Your task to perform on an android device: Turn off the flashlight Image 0: 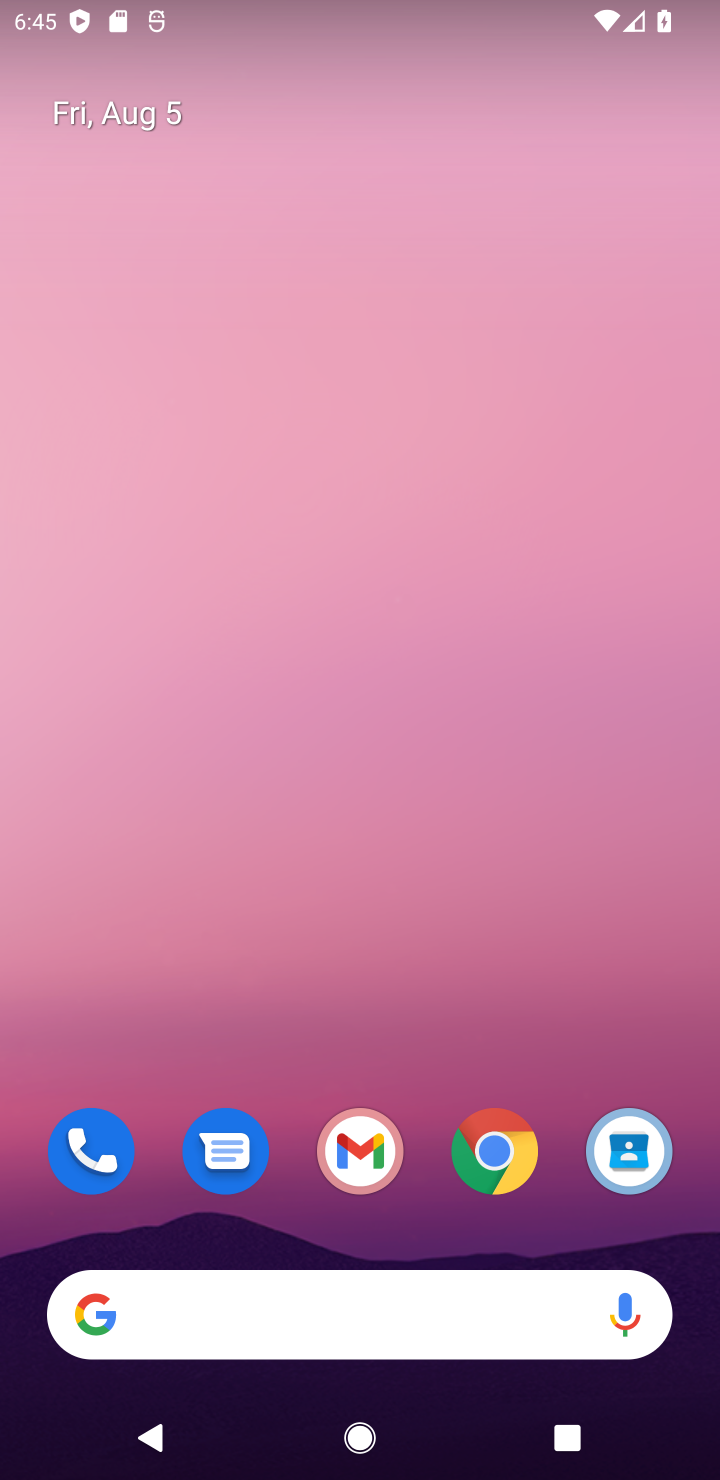
Step 0: drag from (439, 8) to (390, 1414)
Your task to perform on an android device: Turn off the flashlight Image 1: 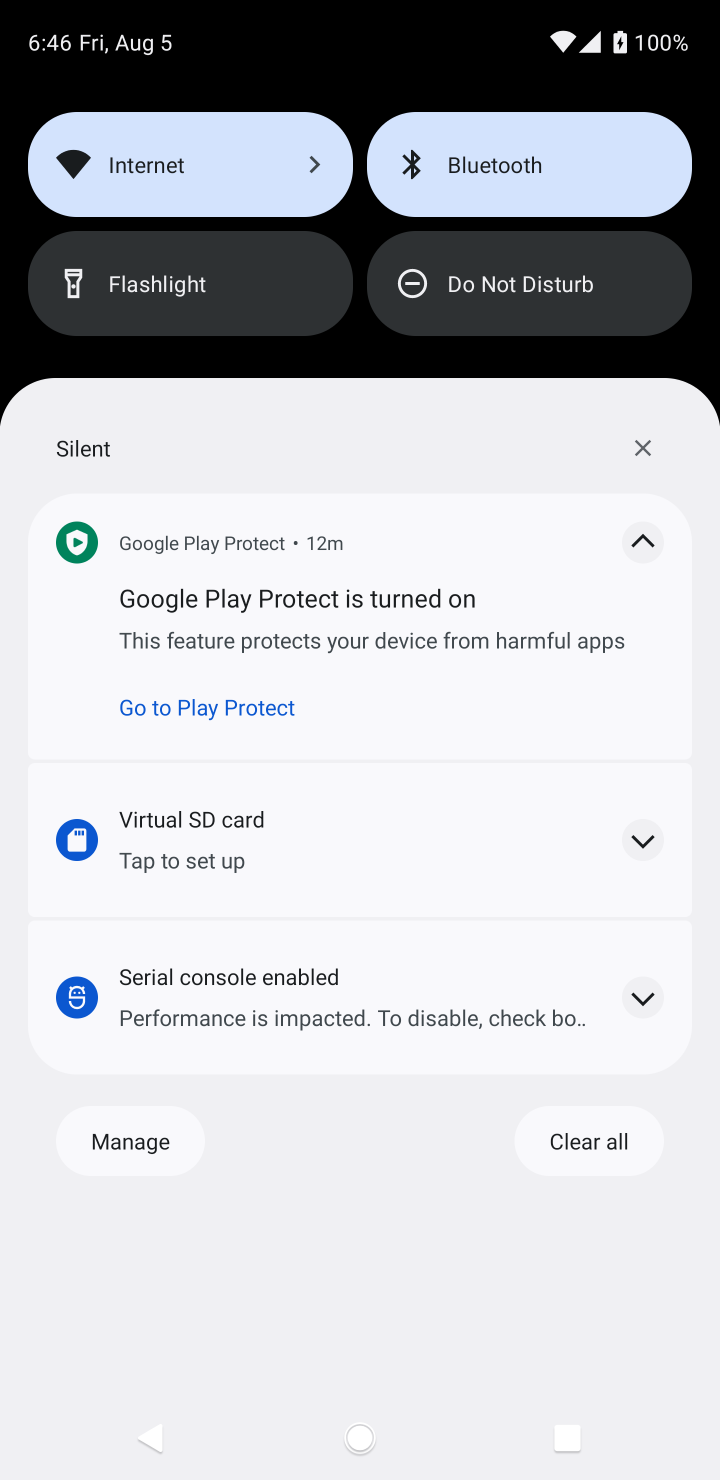
Step 1: task complete